Your task to perform on an android device: toggle location history Image 0: 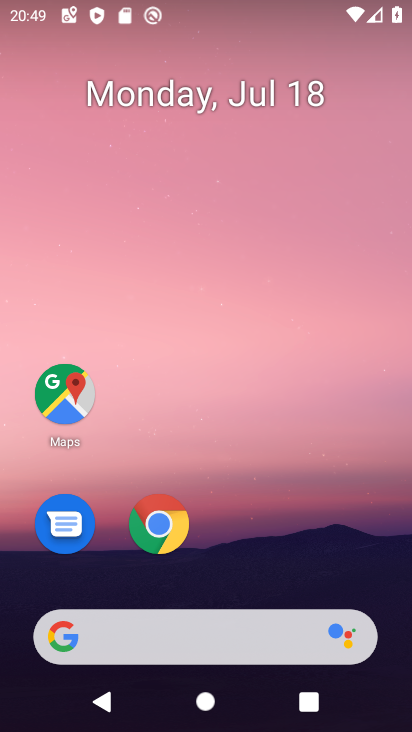
Step 0: drag from (266, 556) to (297, 0)
Your task to perform on an android device: toggle location history Image 1: 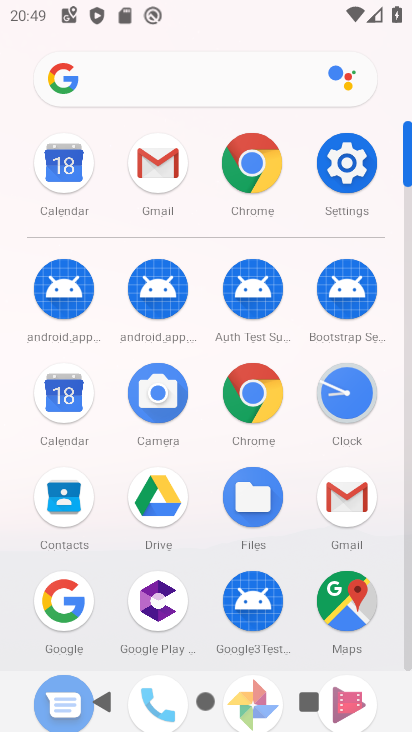
Step 1: click (351, 160)
Your task to perform on an android device: toggle location history Image 2: 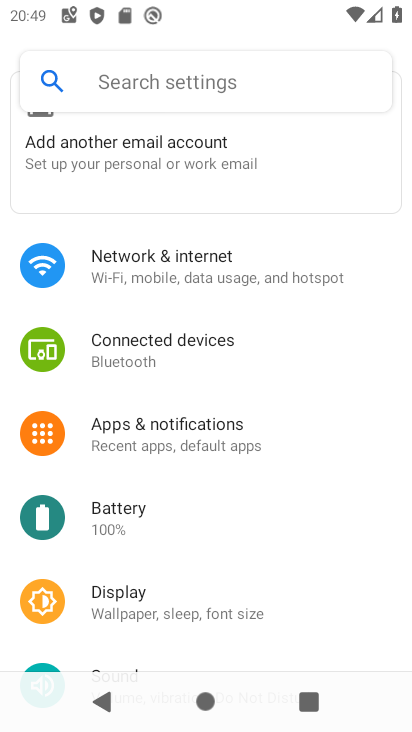
Step 2: drag from (243, 587) to (274, 69)
Your task to perform on an android device: toggle location history Image 3: 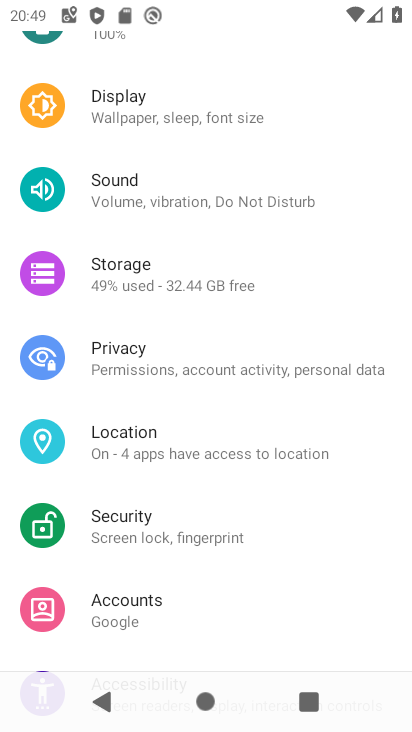
Step 3: click (226, 444)
Your task to perform on an android device: toggle location history Image 4: 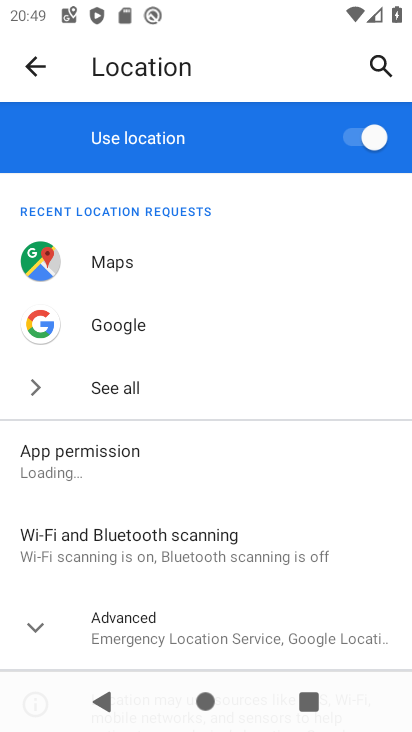
Step 4: drag from (221, 504) to (236, 179)
Your task to perform on an android device: toggle location history Image 5: 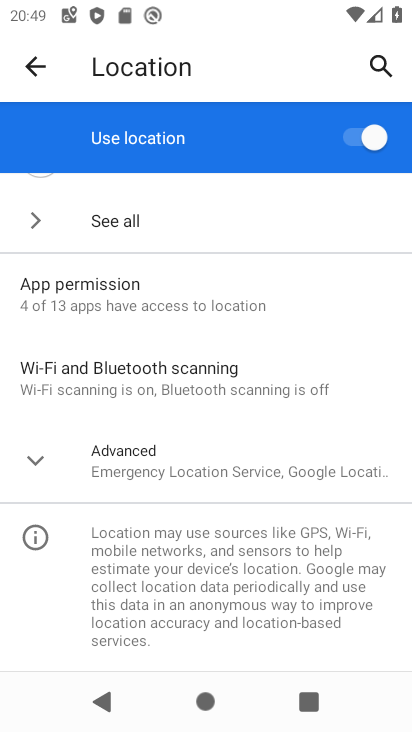
Step 5: click (31, 459)
Your task to perform on an android device: toggle location history Image 6: 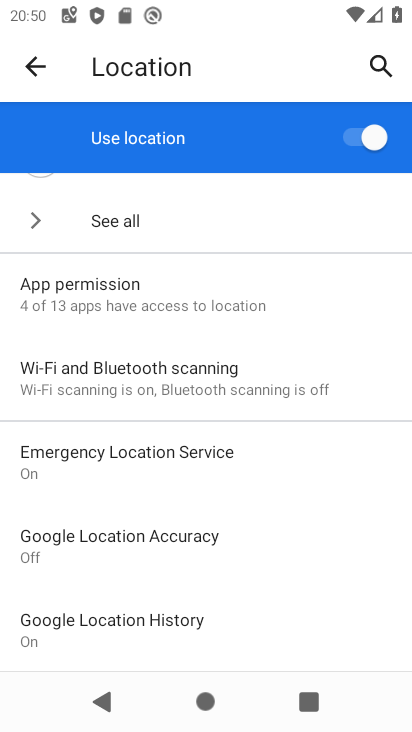
Step 6: click (190, 621)
Your task to perform on an android device: toggle location history Image 7: 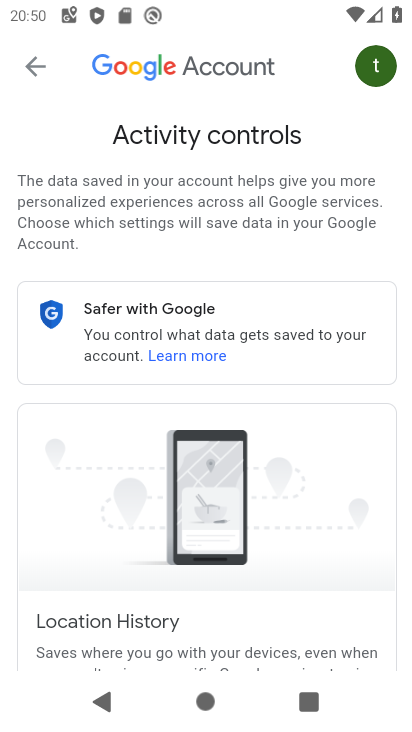
Step 7: drag from (309, 510) to (332, 163)
Your task to perform on an android device: toggle location history Image 8: 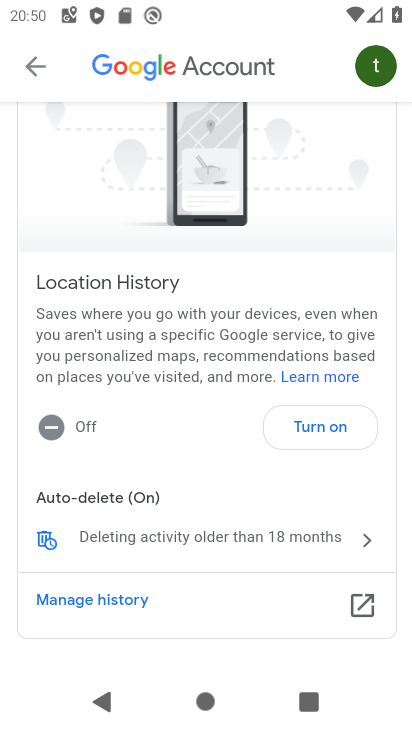
Step 8: click (327, 421)
Your task to perform on an android device: toggle location history Image 9: 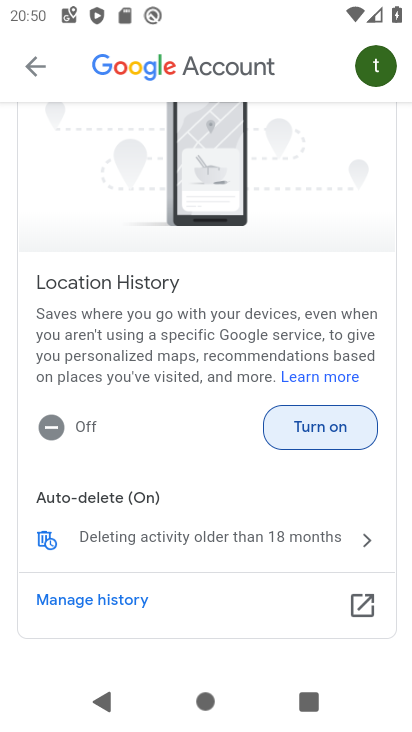
Step 9: click (327, 419)
Your task to perform on an android device: toggle location history Image 10: 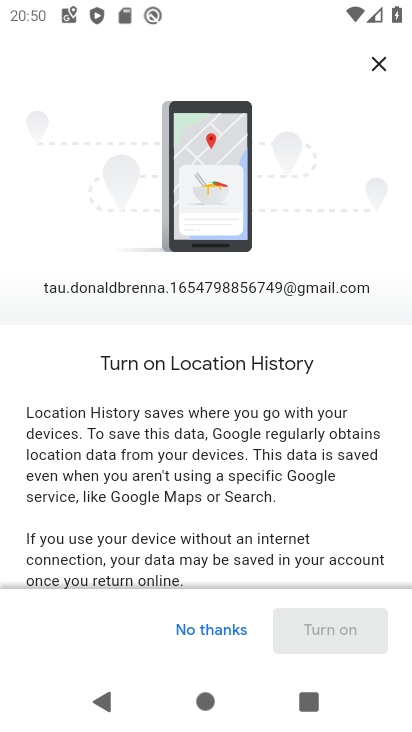
Step 10: drag from (304, 525) to (299, 154)
Your task to perform on an android device: toggle location history Image 11: 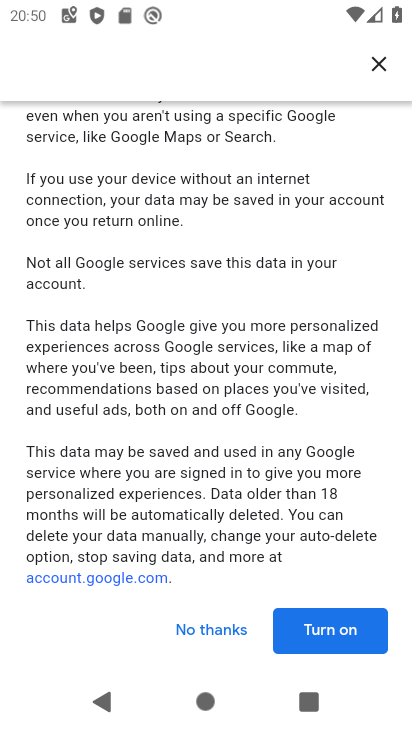
Step 11: click (324, 629)
Your task to perform on an android device: toggle location history Image 12: 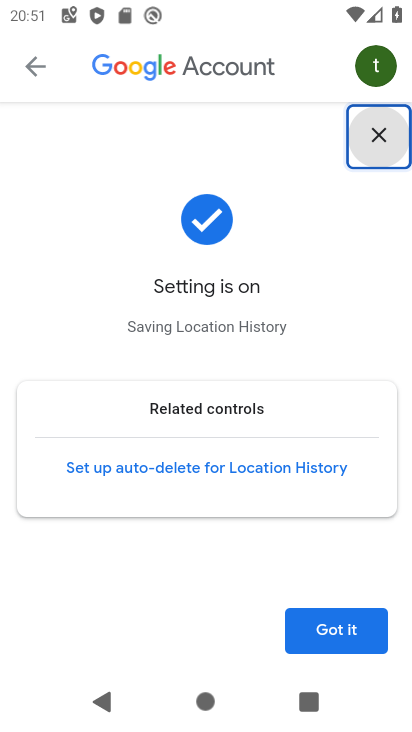
Step 12: click (324, 630)
Your task to perform on an android device: toggle location history Image 13: 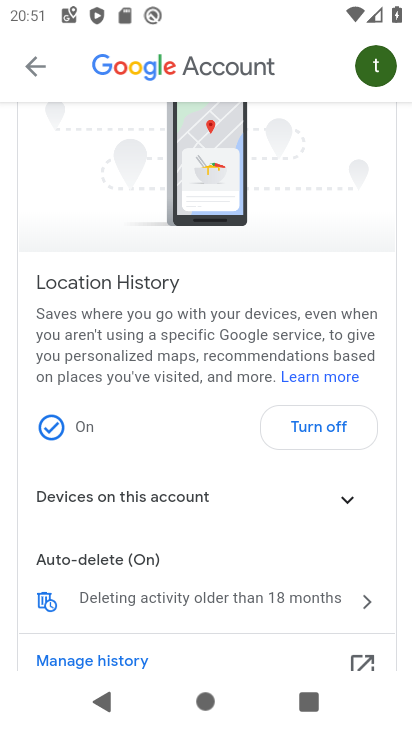
Step 13: task complete